Your task to perform on an android device: Open Android settings Image 0: 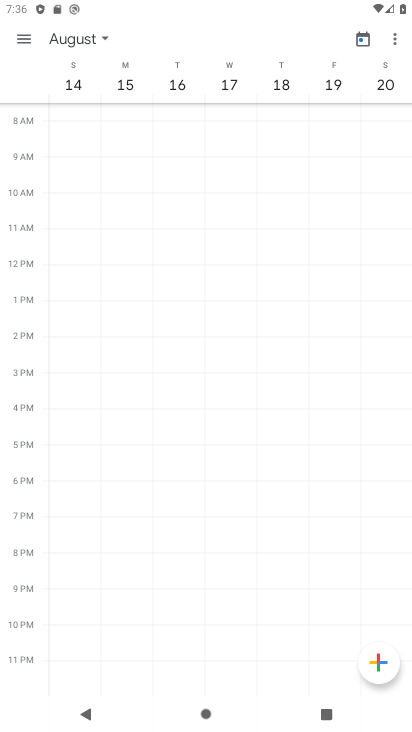
Step 0: press home button
Your task to perform on an android device: Open Android settings Image 1: 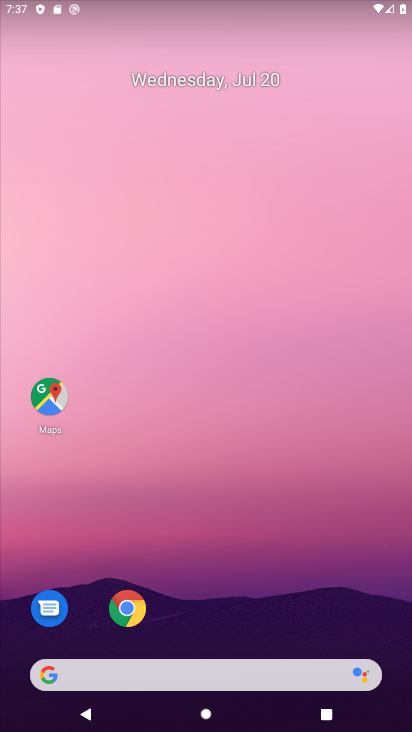
Step 1: drag from (310, 590) to (328, 59)
Your task to perform on an android device: Open Android settings Image 2: 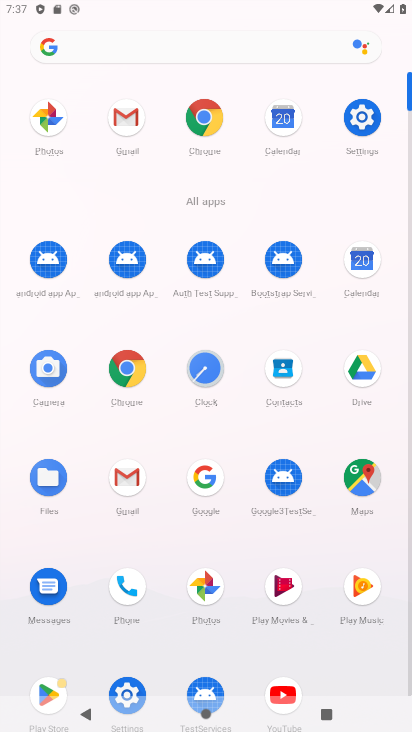
Step 2: click (351, 112)
Your task to perform on an android device: Open Android settings Image 3: 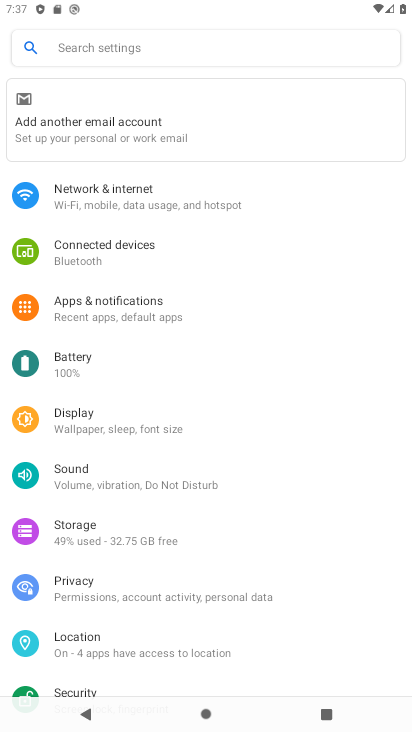
Step 3: task complete